Your task to perform on an android device: open chrome and create a bookmark for the current page Image 0: 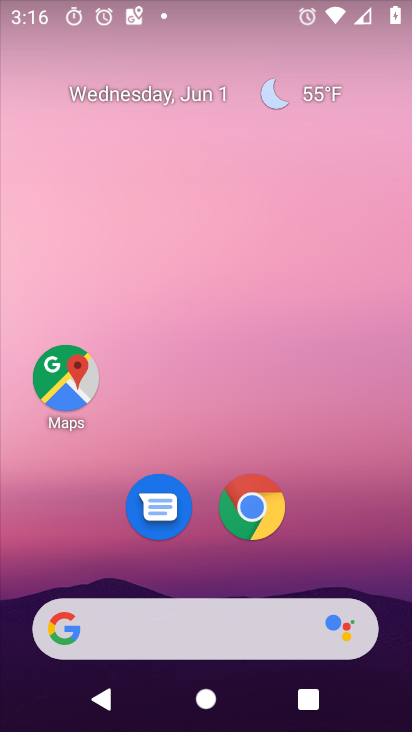
Step 0: click (250, 500)
Your task to perform on an android device: open chrome and create a bookmark for the current page Image 1: 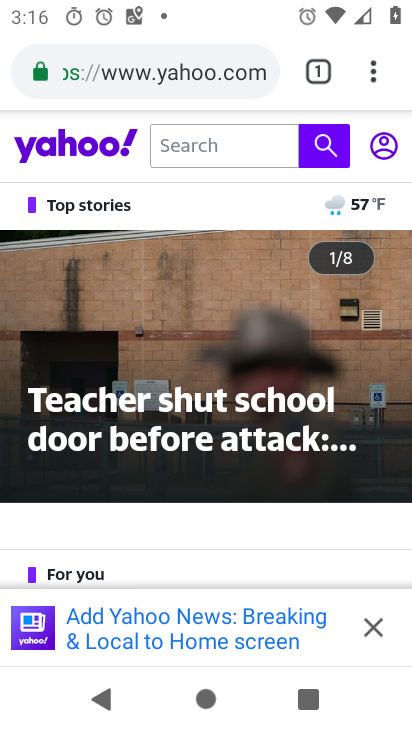
Step 1: click (374, 73)
Your task to perform on an android device: open chrome and create a bookmark for the current page Image 2: 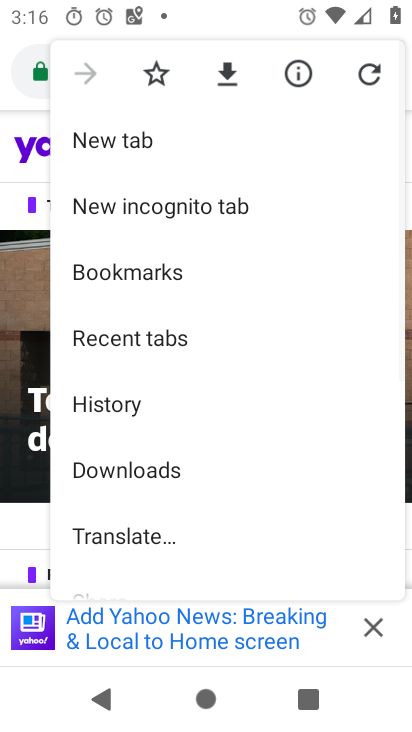
Step 2: click (152, 78)
Your task to perform on an android device: open chrome and create a bookmark for the current page Image 3: 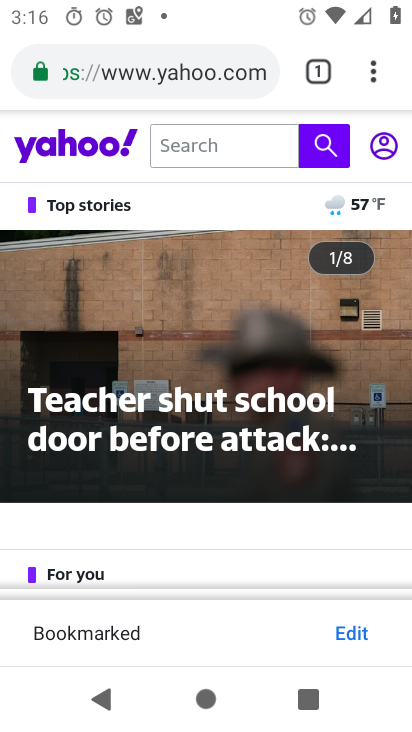
Step 3: task complete